Your task to perform on an android device: read, delete, or share a saved page in the chrome app Image 0: 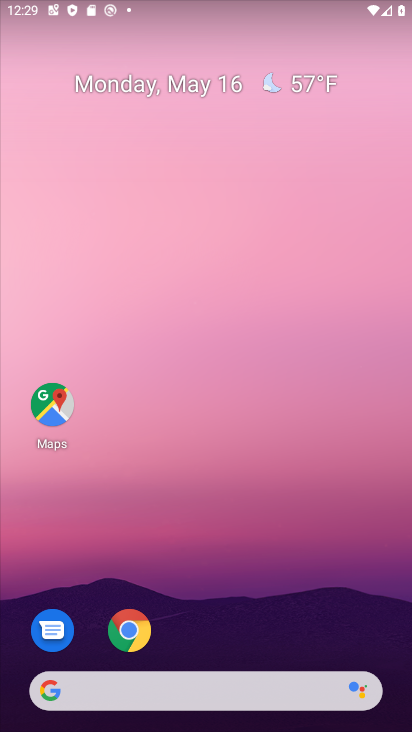
Step 0: drag from (194, 664) to (295, 178)
Your task to perform on an android device: read, delete, or share a saved page in the chrome app Image 1: 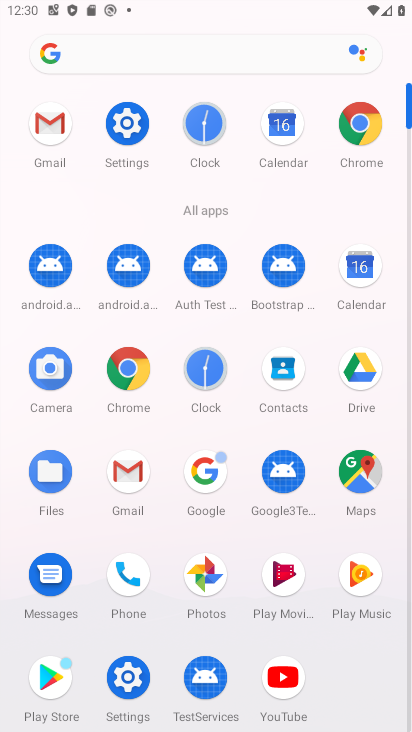
Step 1: click (124, 372)
Your task to perform on an android device: read, delete, or share a saved page in the chrome app Image 2: 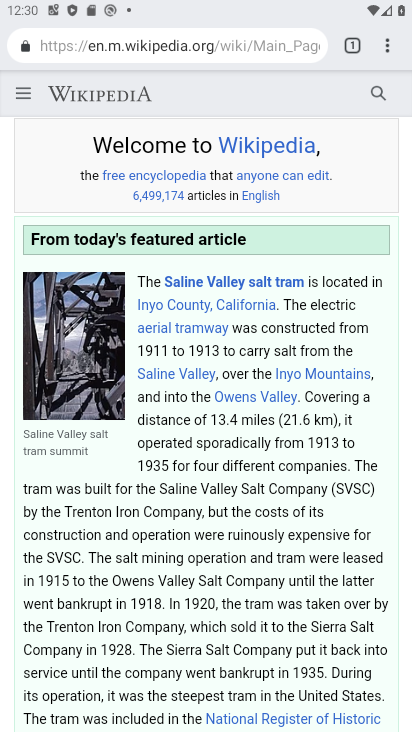
Step 2: click (389, 43)
Your task to perform on an android device: read, delete, or share a saved page in the chrome app Image 3: 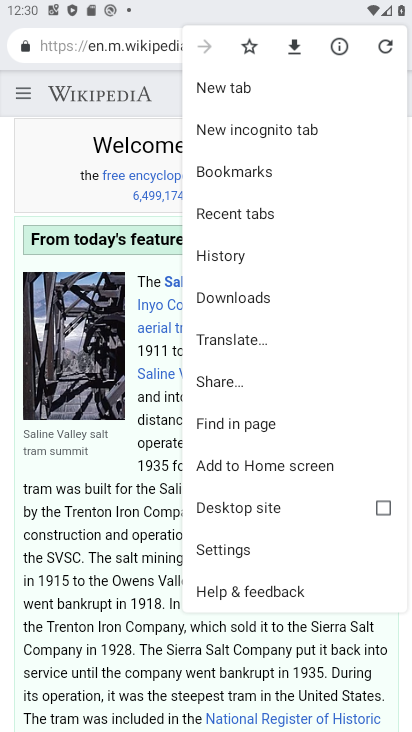
Step 3: click (225, 552)
Your task to perform on an android device: read, delete, or share a saved page in the chrome app Image 4: 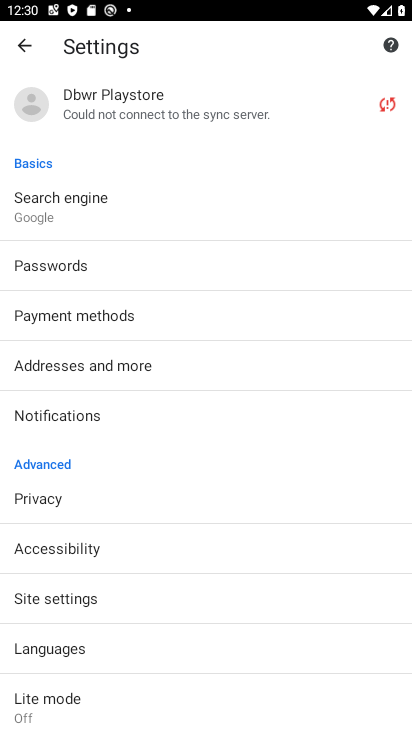
Step 4: click (24, 42)
Your task to perform on an android device: read, delete, or share a saved page in the chrome app Image 5: 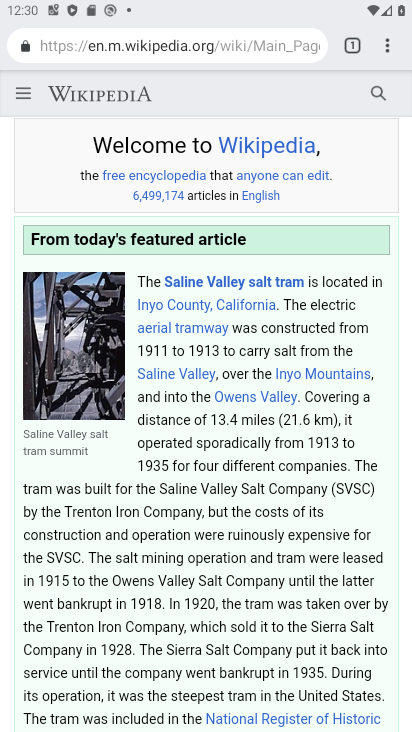
Step 5: click (388, 47)
Your task to perform on an android device: read, delete, or share a saved page in the chrome app Image 6: 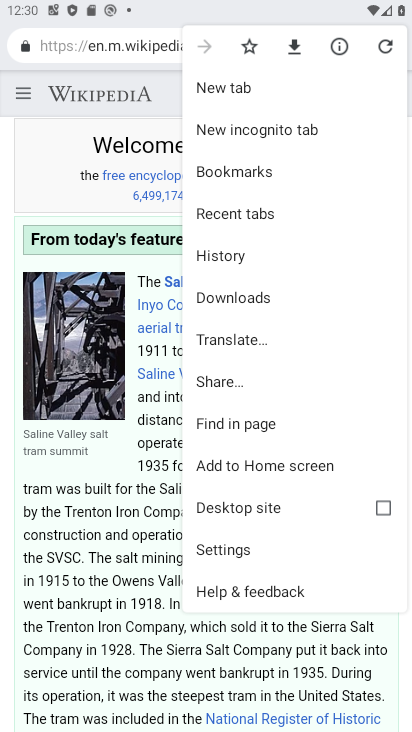
Step 6: click (233, 297)
Your task to perform on an android device: read, delete, or share a saved page in the chrome app Image 7: 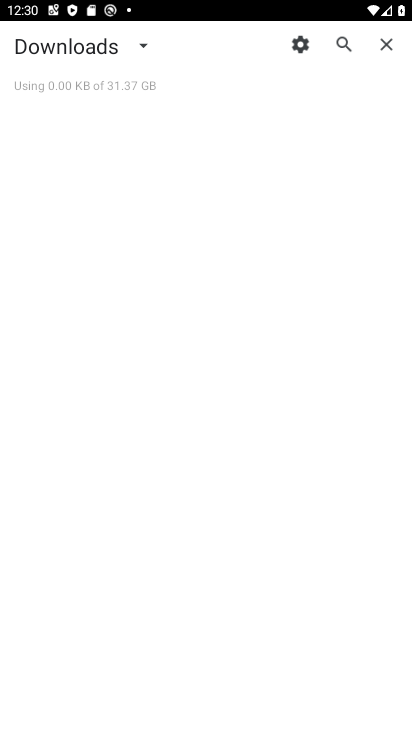
Step 7: click (145, 51)
Your task to perform on an android device: read, delete, or share a saved page in the chrome app Image 8: 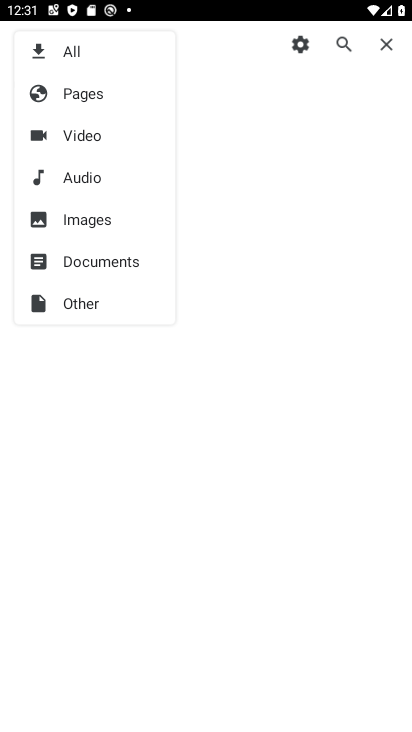
Step 8: click (89, 94)
Your task to perform on an android device: read, delete, or share a saved page in the chrome app Image 9: 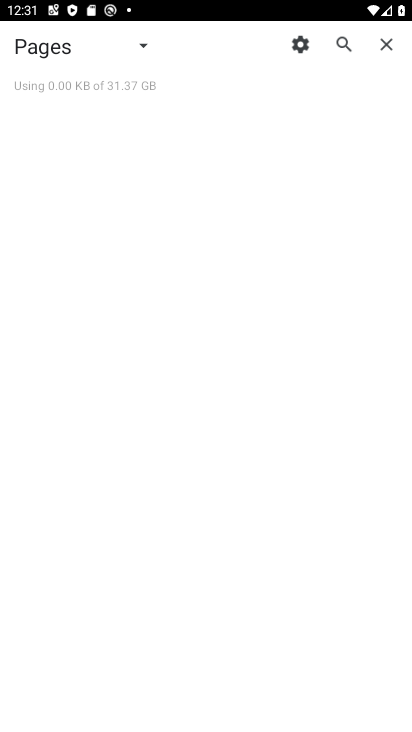
Step 9: task complete